Your task to perform on an android device: set the stopwatch Image 0: 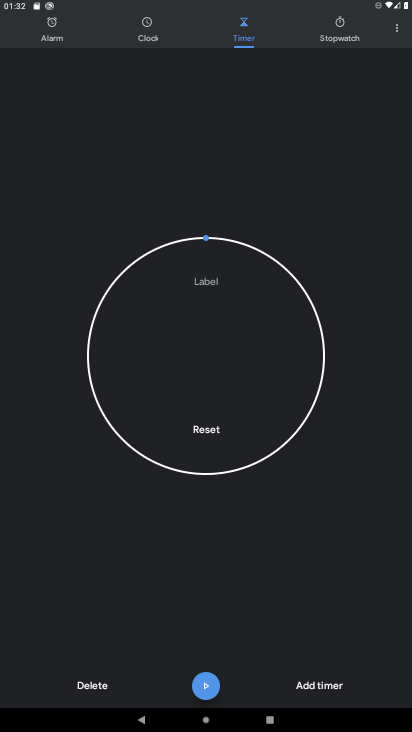
Step 0: click (343, 26)
Your task to perform on an android device: set the stopwatch Image 1: 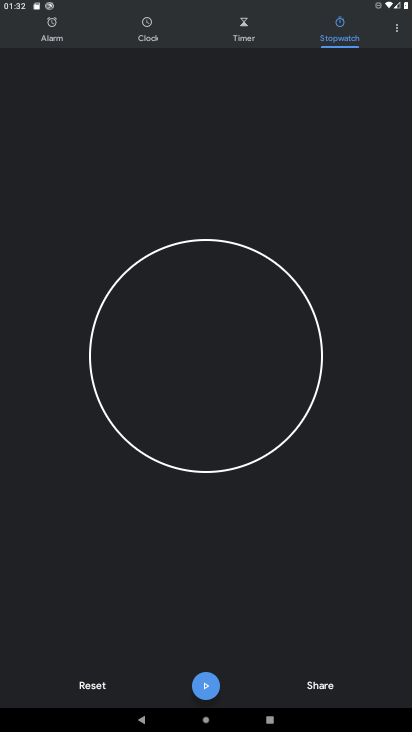
Step 1: click (218, 687)
Your task to perform on an android device: set the stopwatch Image 2: 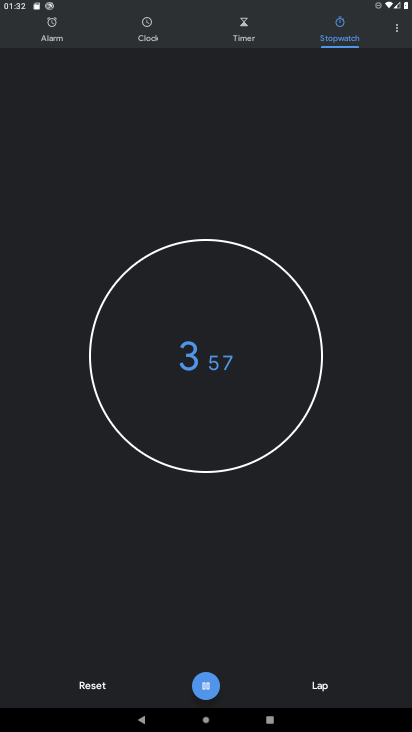
Step 2: click (199, 693)
Your task to perform on an android device: set the stopwatch Image 3: 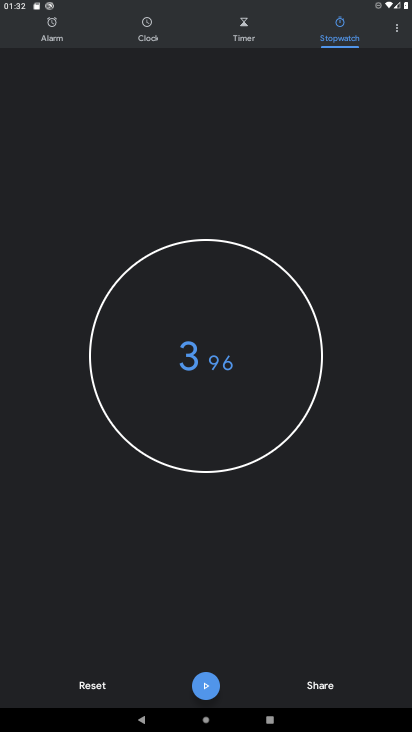
Step 3: task complete